Your task to perform on an android device: search for starred emails in the gmail app Image 0: 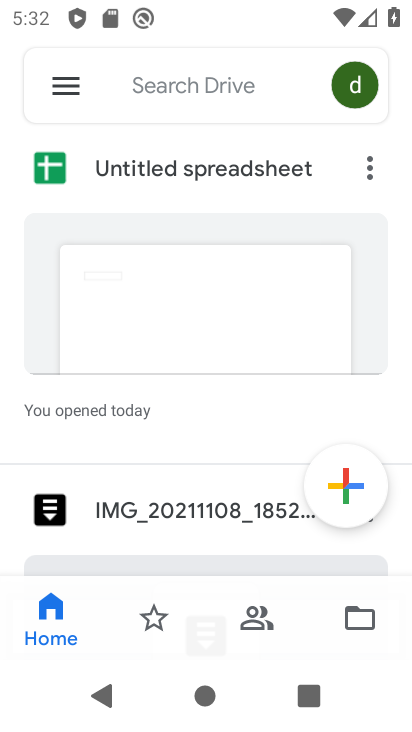
Step 0: press home button
Your task to perform on an android device: search for starred emails in the gmail app Image 1: 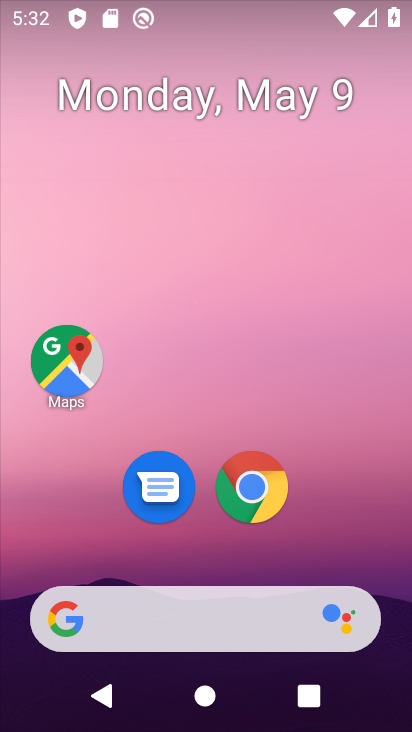
Step 1: drag from (330, 543) to (253, 36)
Your task to perform on an android device: search for starred emails in the gmail app Image 2: 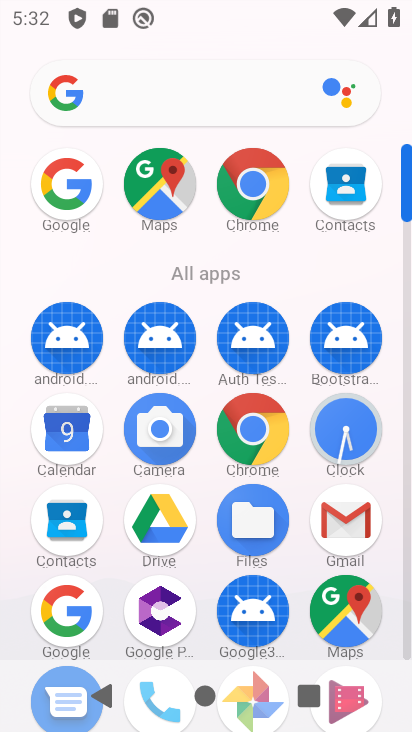
Step 2: click (339, 547)
Your task to perform on an android device: search for starred emails in the gmail app Image 3: 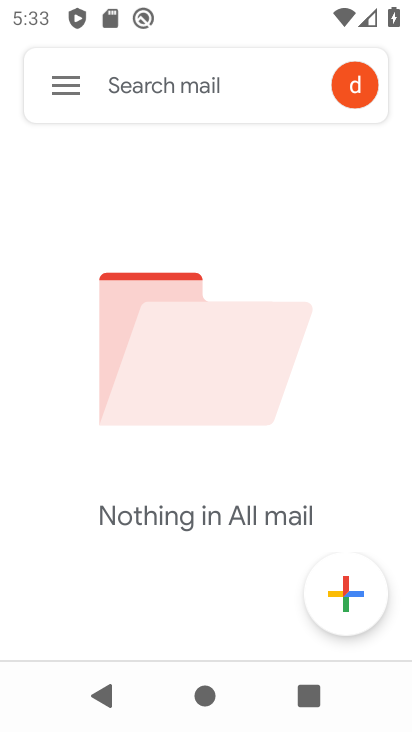
Step 3: click (56, 90)
Your task to perform on an android device: search for starred emails in the gmail app Image 4: 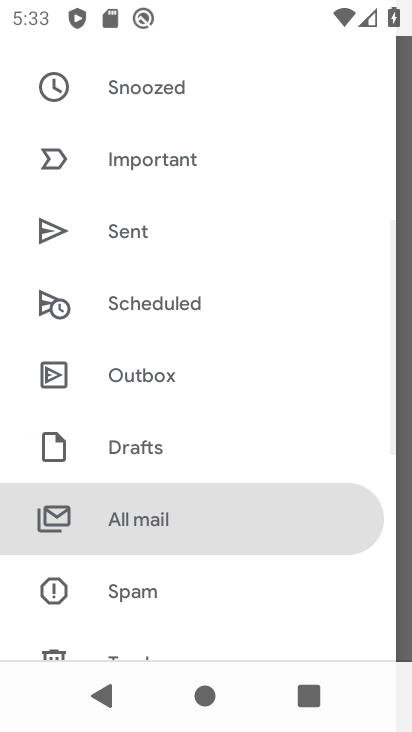
Step 4: drag from (177, 120) to (185, 559)
Your task to perform on an android device: search for starred emails in the gmail app Image 5: 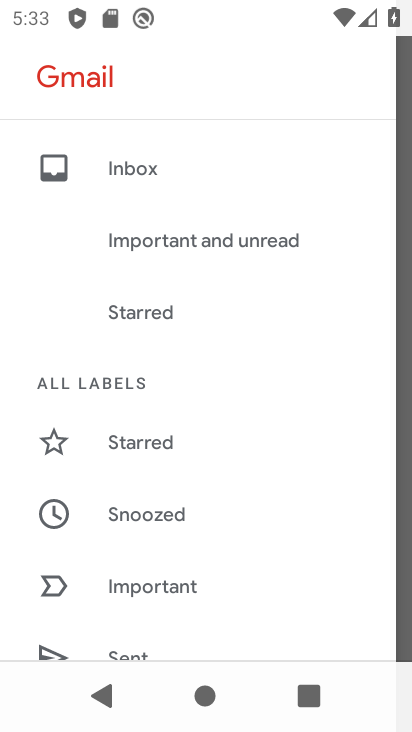
Step 5: click (125, 454)
Your task to perform on an android device: search for starred emails in the gmail app Image 6: 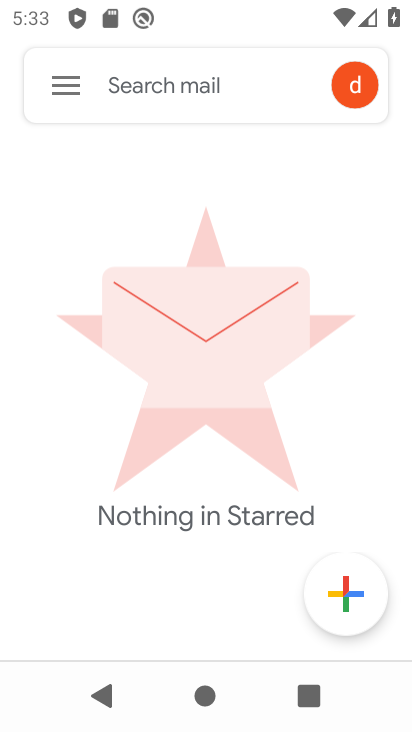
Step 6: task complete